Your task to perform on an android device: toggle notifications settings in the gmail app Image 0: 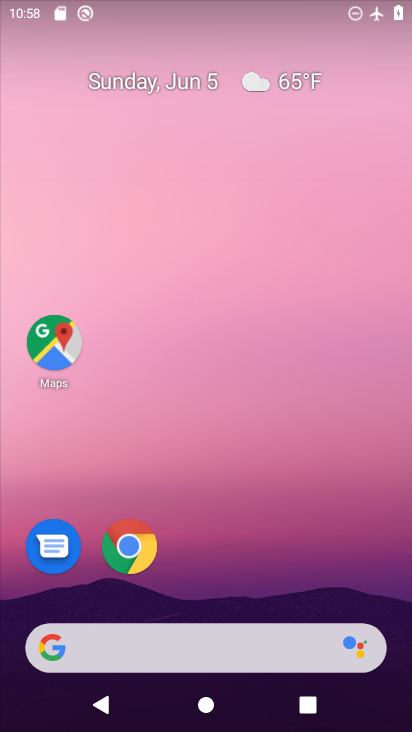
Step 0: drag from (194, 525) to (218, 347)
Your task to perform on an android device: toggle notifications settings in the gmail app Image 1: 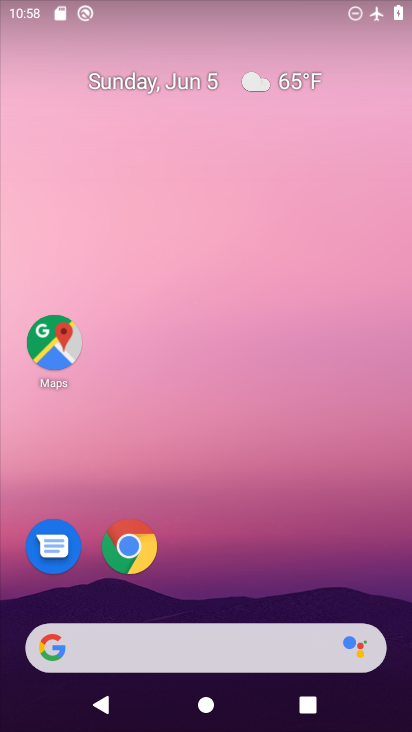
Step 1: drag from (201, 541) to (246, 231)
Your task to perform on an android device: toggle notifications settings in the gmail app Image 2: 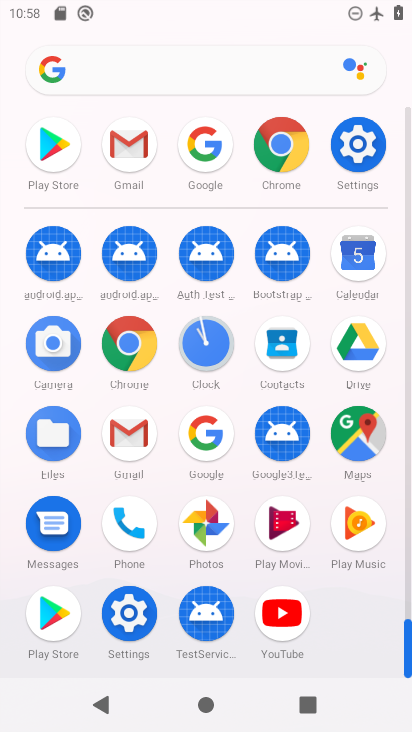
Step 2: click (142, 424)
Your task to perform on an android device: toggle notifications settings in the gmail app Image 3: 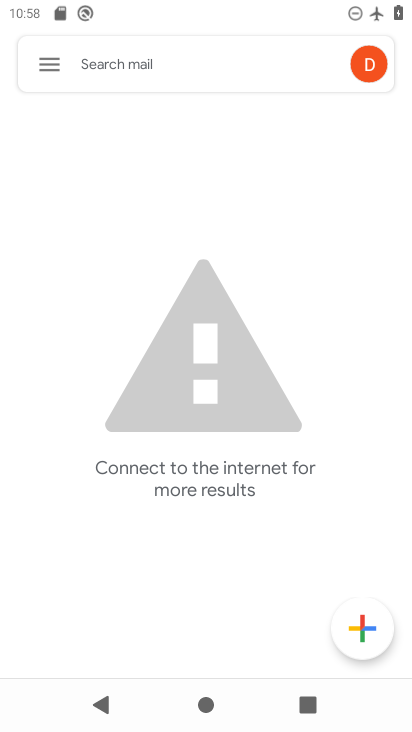
Step 3: click (51, 57)
Your task to perform on an android device: toggle notifications settings in the gmail app Image 4: 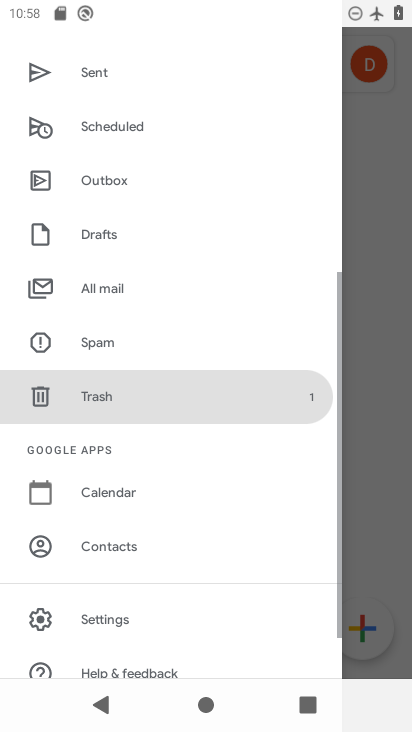
Step 4: drag from (164, 530) to (182, 128)
Your task to perform on an android device: toggle notifications settings in the gmail app Image 5: 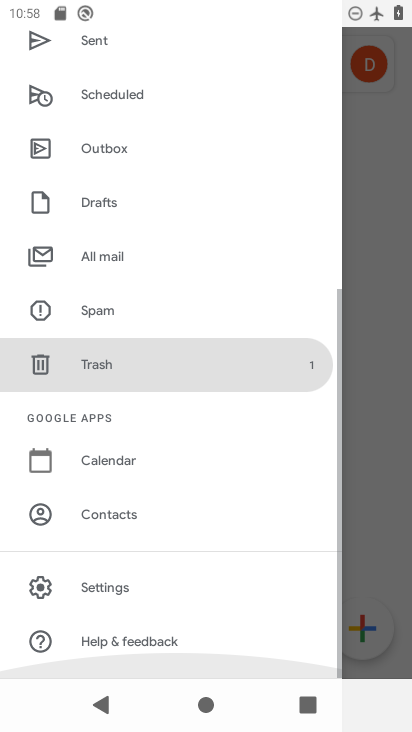
Step 5: drag from (189, 127) to (280, 652)
Your task to perform on an android device: toggle notifications settings in the gmail app Image 6: 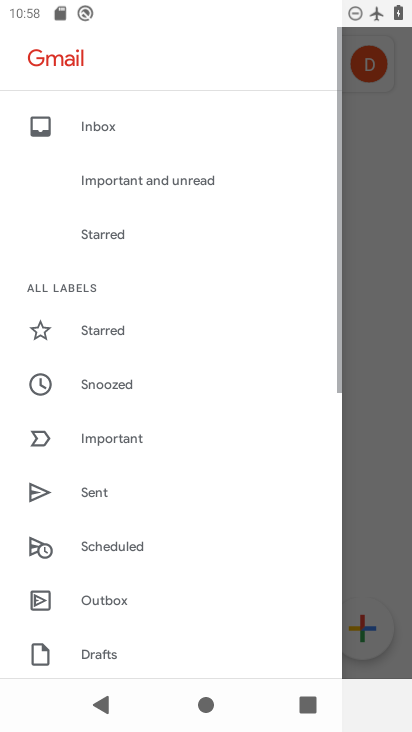
Step 6: drag from (122, 164) to (175, 621)
Your task to perform on an android device: toggle notifications settings in the gmail app Image 7: 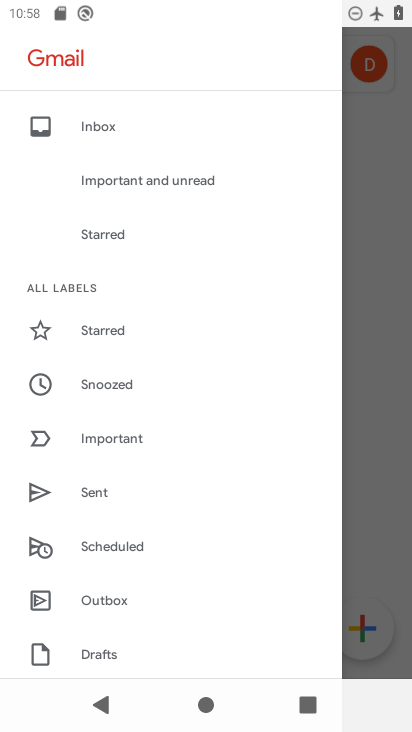
Step 7: drag from (126, 536) to (227, 63)
Your task to perform on an android device: toggle notifications settings in the gmail app Image 8: 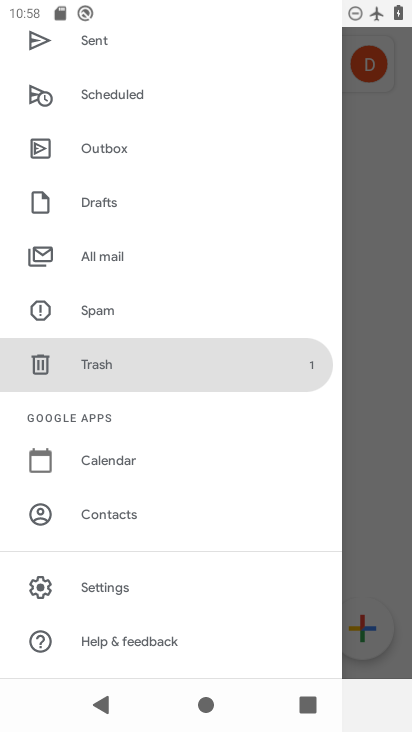
Step 8: click (116, 582)
Your task to perform on an android device: toggle notifications settings in the gmail app Image 9: 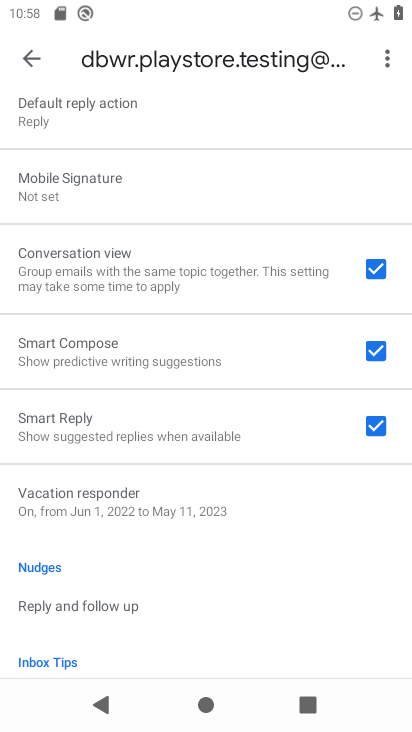
Step 9: drag from (165, 222) to (281, 726)
Your task to perform on an android device: toggle notifications settings in the gmail app Image 10: 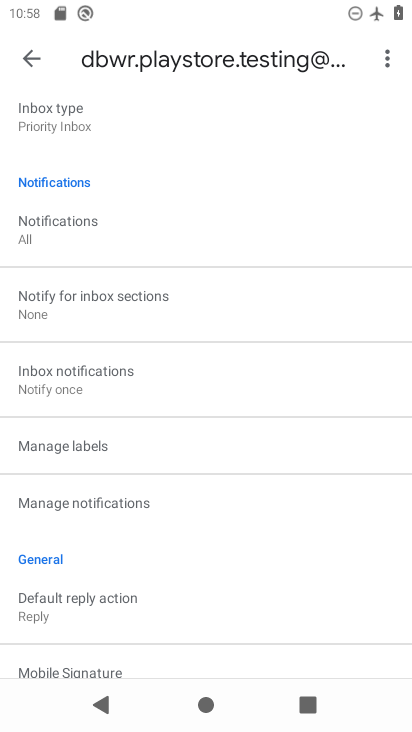
Step 10: click (91, 497)
Your task to perform on an android device: toggle notifications settings in the gmail app Image 11: 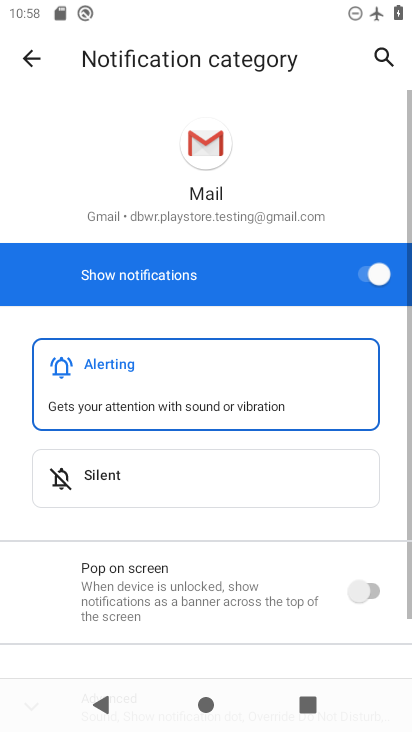
Step 11: drag from (177, 507) to (251, 195)
Your task to perform on an android device: toggle notifications settings in the gmail app Image 12: 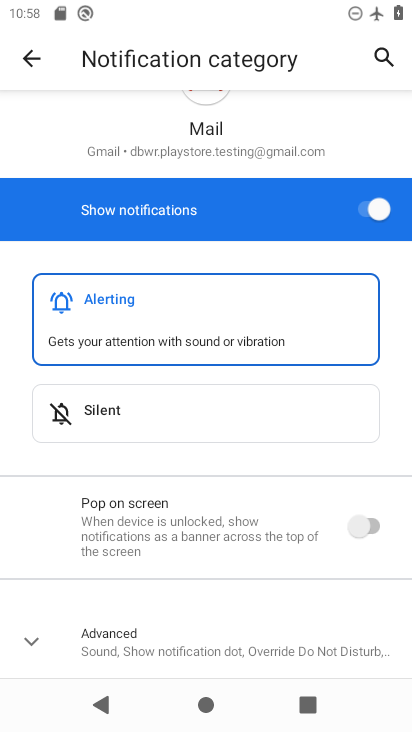
Step 12: drag from (258, 554) to (313, 230)
Your task to perform on an android device: toggle notifications settings in the gmail app Image 13: 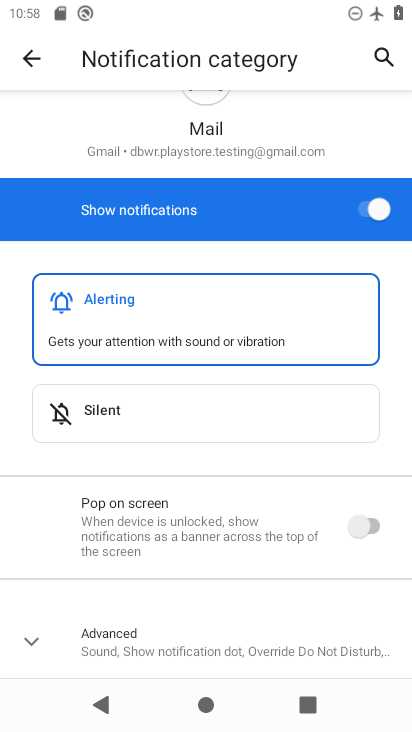
Step 13: click (365, 218)
Your task to perform on an android device: toggle notifications settings in the gmail app Image 14: 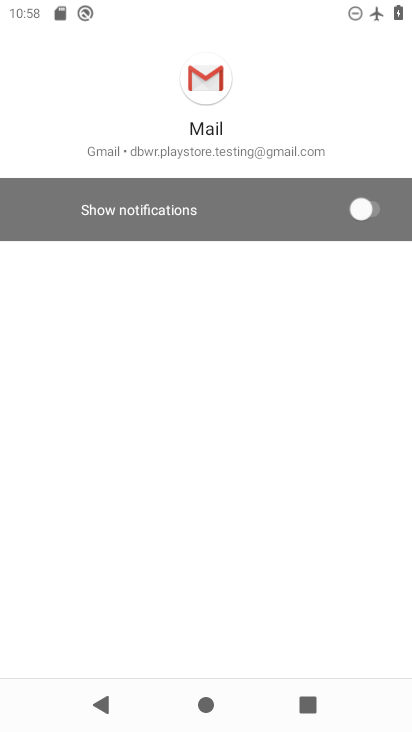
Step 14: task complete